Your task to perform on an android device: clear all cookies in the chrome app Image 0: 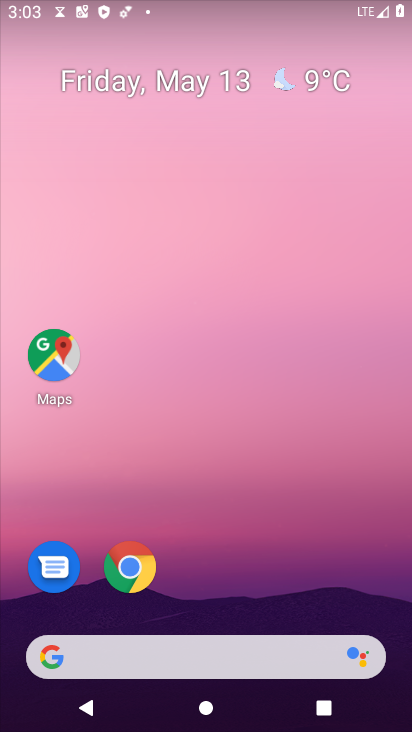
Step 0: click (129, 565)
Your task to perform on an android device: clear all cookies in the chrome app Image 1: 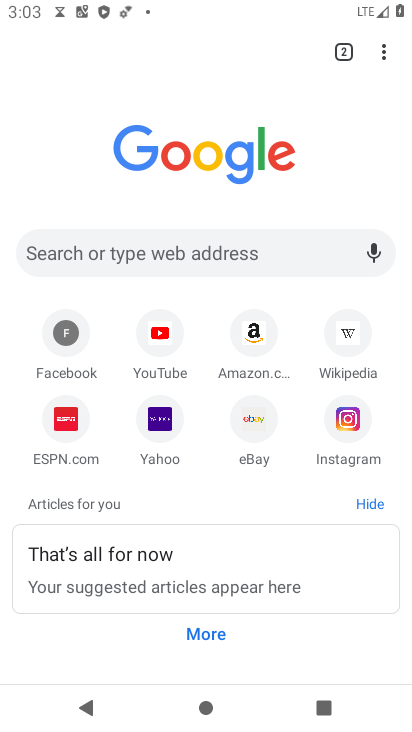
Step 1: drag from (381, 50) to (181, 431)
Your task to perform on an android device: clear all cookies in the chrome app Image 2: 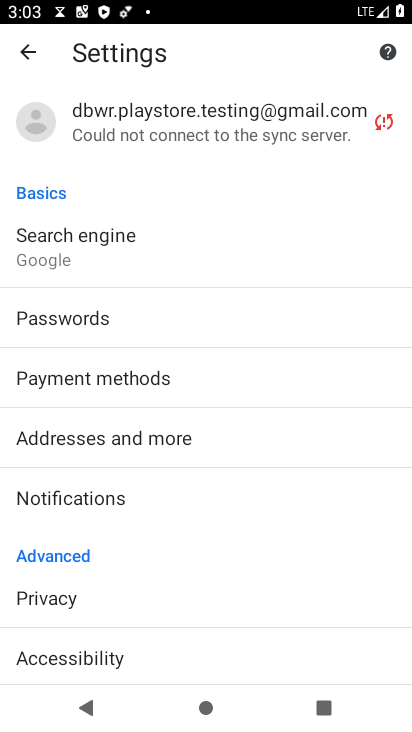
Step 2: click (61, 596)
Your task to perform on an android device: clear all cookies in the chrome app Image 3: 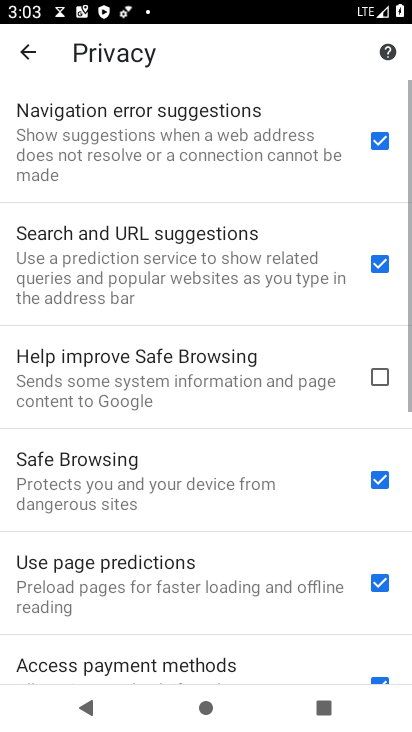
Step 3: drag from (124, 591) to (168, 148)
Your task to perform on an android device: clear all cookies in the chrome app Image 4: 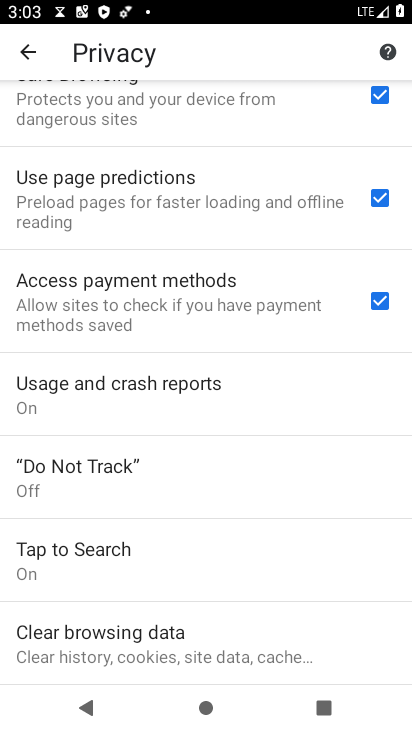
Step 4: click (103, 640)
Your task to perform on an android device: clear all cookies in the chrome app Image 5: 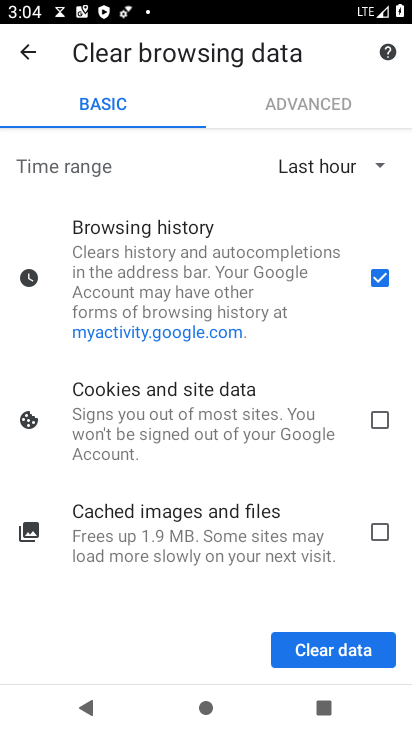
Step 5: click (373, 270)
Your task to perform on an android device: clear all cookies in the chrome app Image 6: 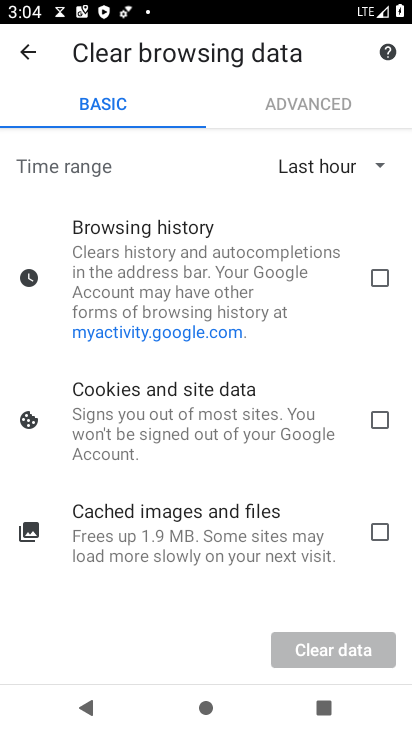
Step 6: click (378, 414)
Your task to perform on an android device: clear all cookies in the chrome app Image 7: 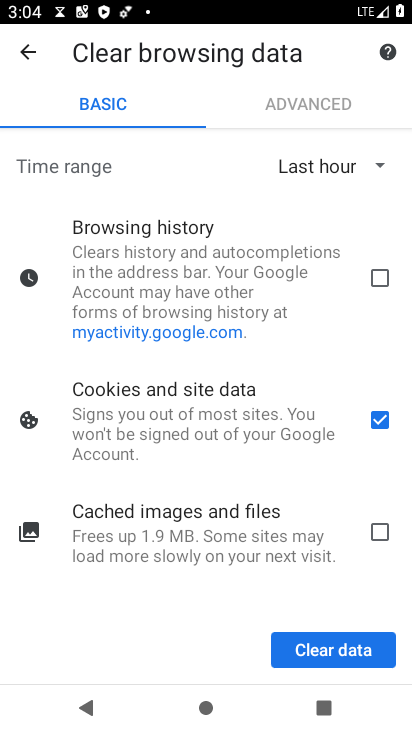
Step 7: click (324, 649)
Your task to perform on an android device: clear all cookies in the chrome app Image 8: 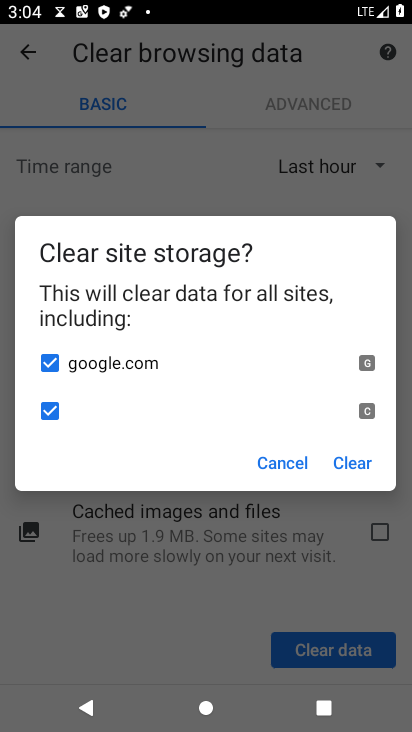
Step 8: click (341, 465)
Your task to perform on an android device: clear all cookies in the chrome app Image 9: 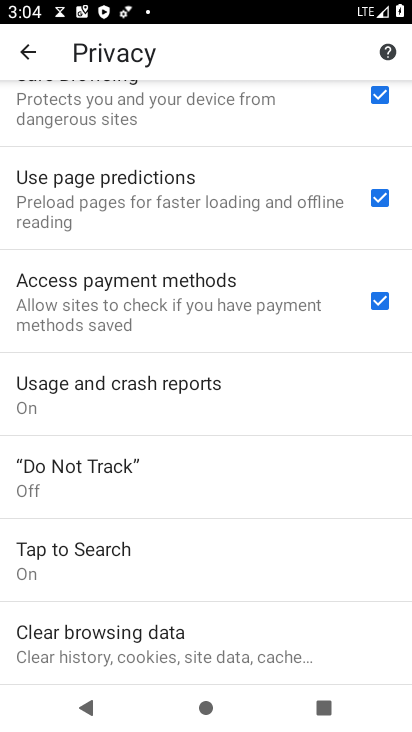
Step 9: task complete